Your task to perform on an android device: Go to CNN.com Image 0: 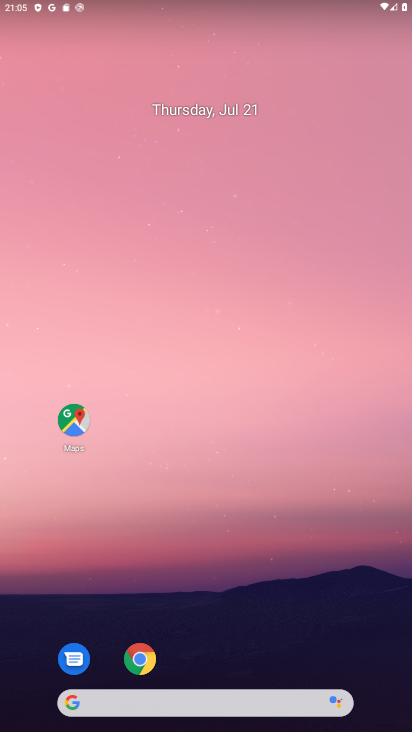
Step 0: press home button
Your task to perform on an android device: Go to CNN.com Image 1: 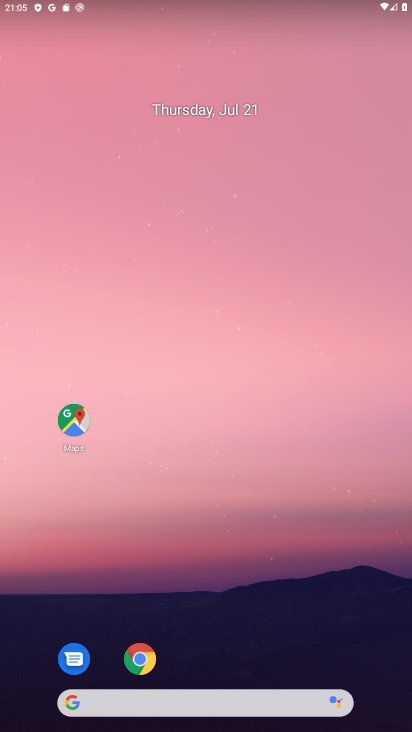
Step 1: click (149, 669)
Your task to perform on an android device: Go to CNN.com Image 2: 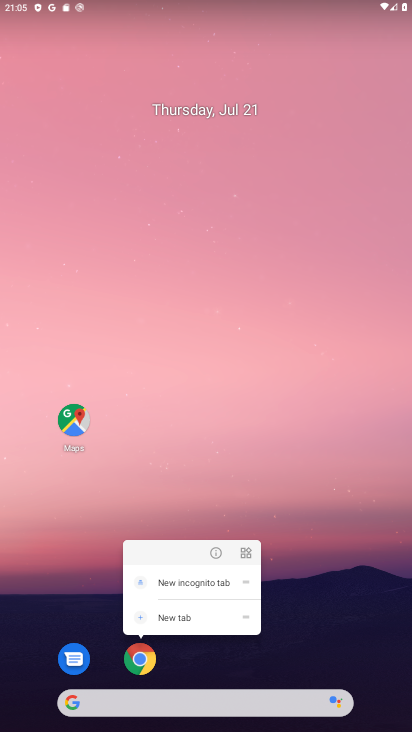
Step 2: click (149, 669)
Your task to perform on an android device: Go to CNN.com Image 3: 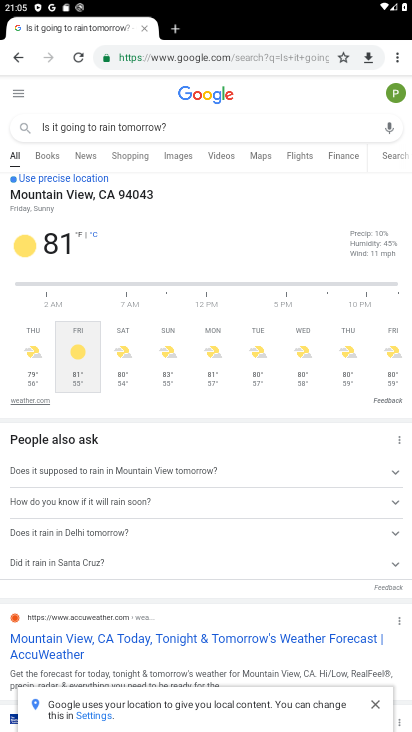
Step 3: click (263, 53)
Your task to perform on an android device: Go to CNN.com Image 4: 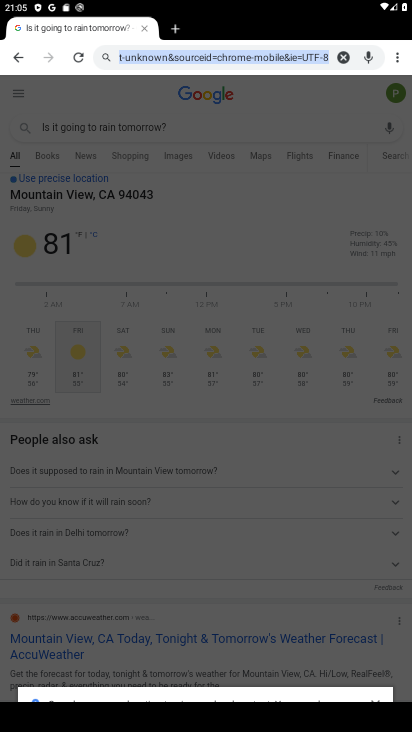
Step 4: type "CNN.com"
Your task to perform on an android device: Go to CNN.com Image 5: 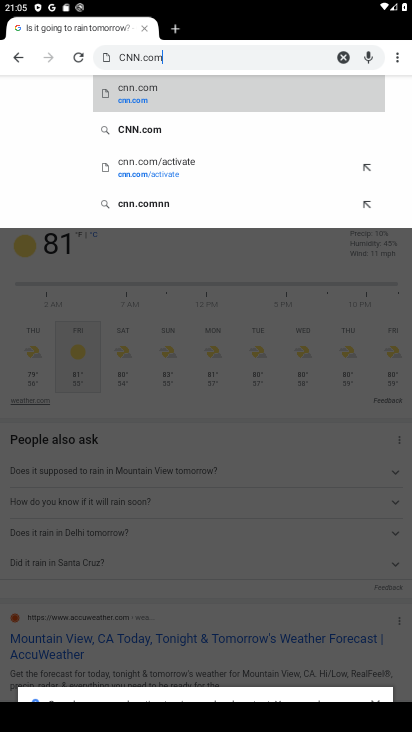
Step 5: click (302, 95)
Your task to perform on an android device: Go to CNN.com Image 6: 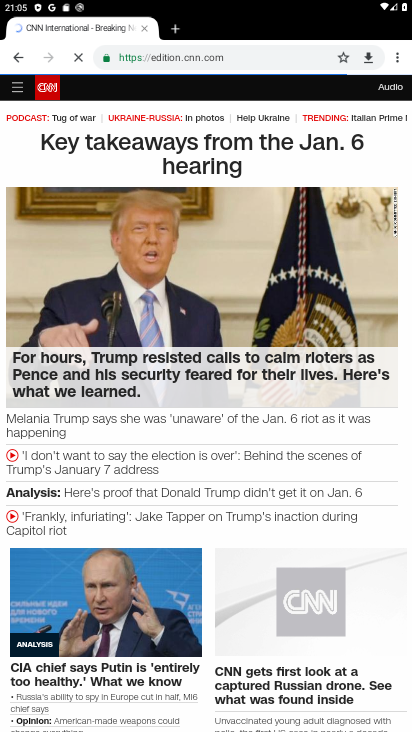
Step 6: task complete